Your task to perform on an android device: Open location settings Image 0: 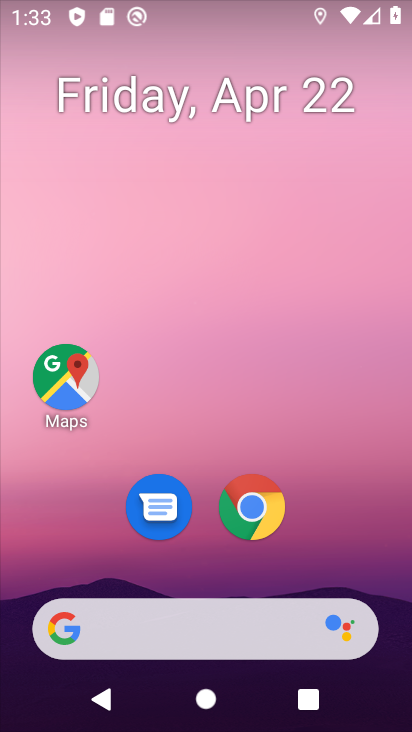
Step 0: drag from (167, 633) to (281, 228)
Your task to perform on an android device: Open location settings Image 1: 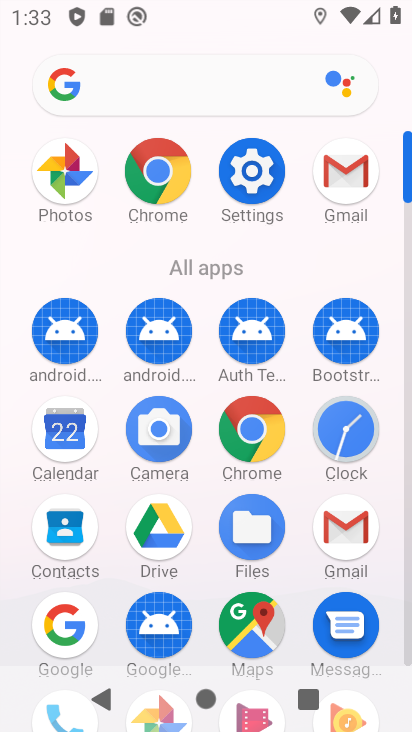
Step 1: drag from (225, 576) to (193, 286)
Your task to perform on an android device: Open location settings Image 2: 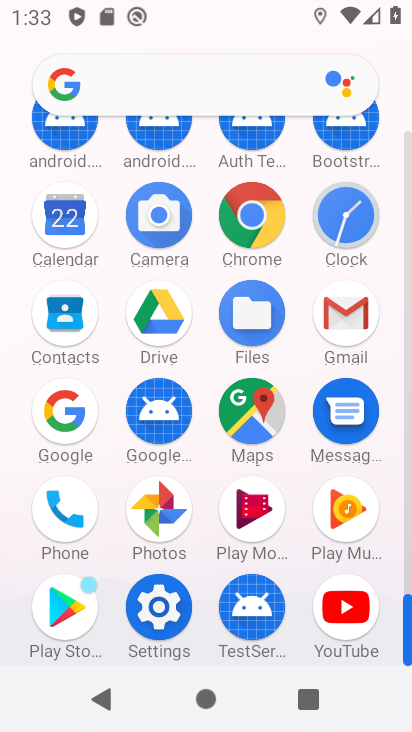
Step 2: click (150, 622)
Your task to perform on an android device: Open location settings Image 3: 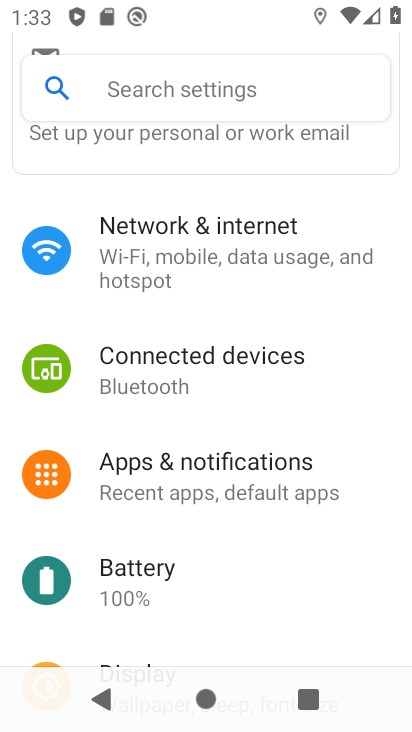
Step 3: drag from (197, 578) to (303, 257)
Your task to perform on an android device: Open location settings Image 4: 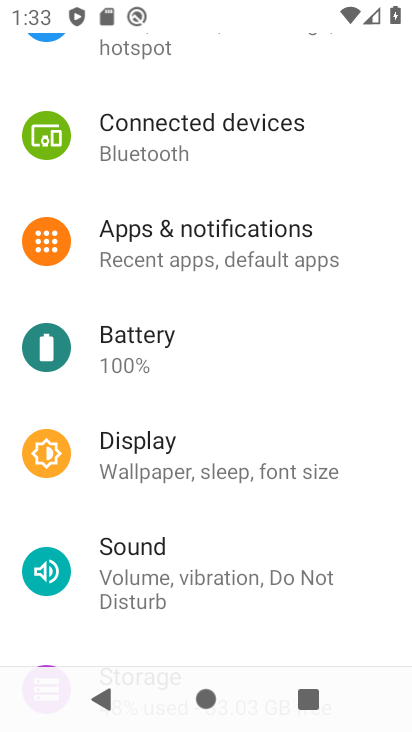
Step 4: drag from (211, 607) to (295, 155)
Your task to perform on an android device: Open location settings Image 5: 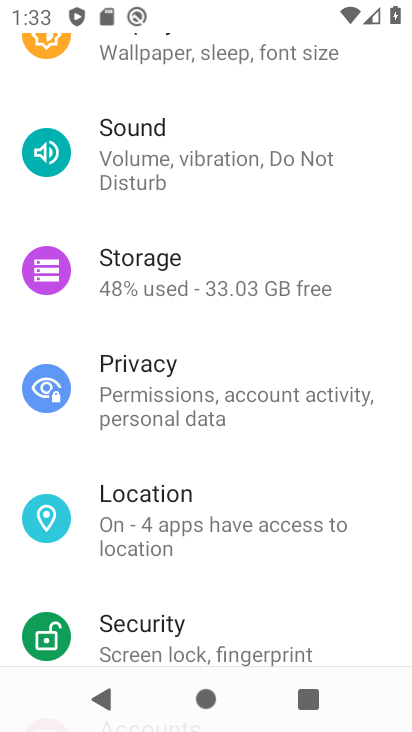
Step 5: click (193, 529)
Your task to perform on an android device: Open location settings Image 6: 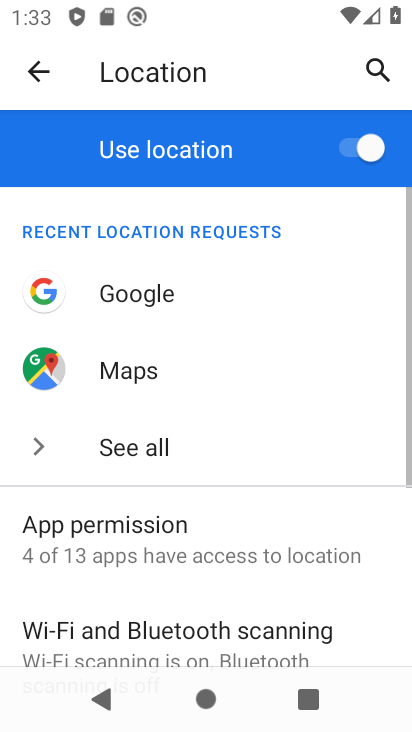
Step 6: task complete